Your task to perform on an android device: check battery use Image 0: 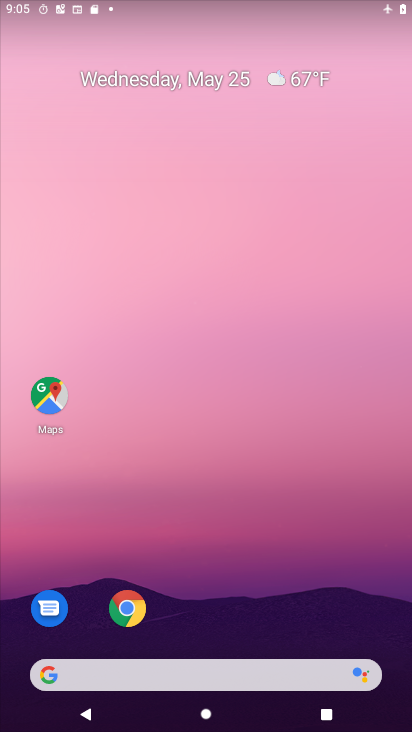
Step 0: drag from (221, 724) to (243, 98)
Your task to perform on an android device: check battery use Image 1: 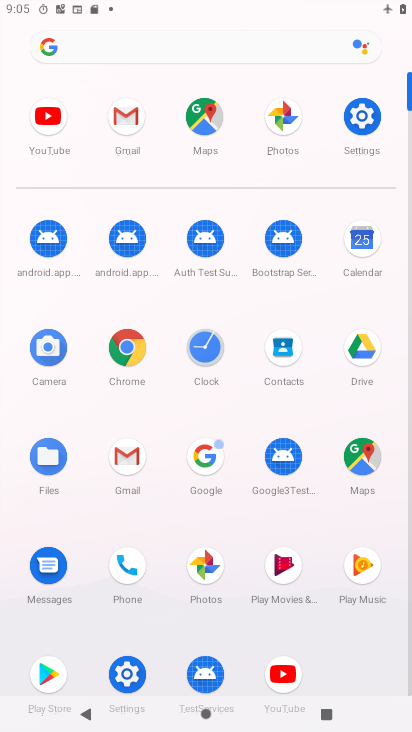
Step 1: click (364, 123)
Your task to perform on an android device: check battery use Image 2: 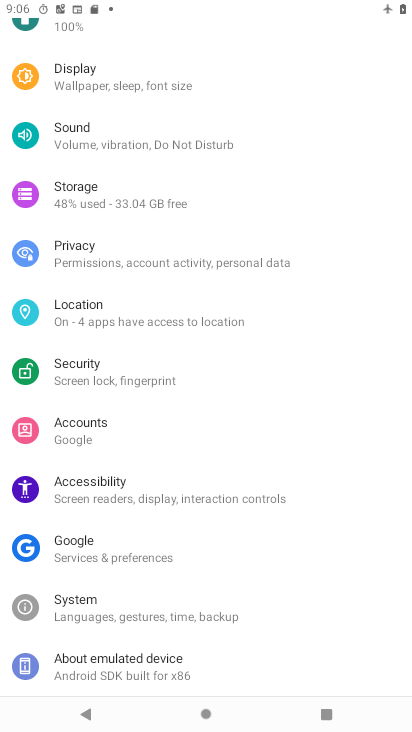
Step 2: drag from (214, 116) to (233, 445)
Your task to perform on an android device: check battery use Image 3: 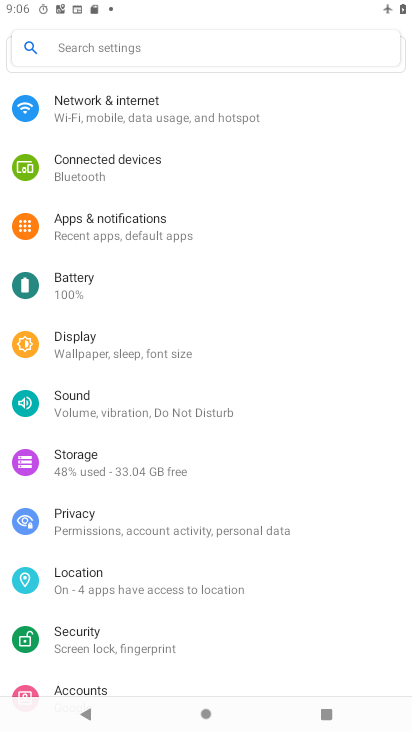
Step 3: click (70, 279)
Your task to perform on an android device: check battery use Image 4: 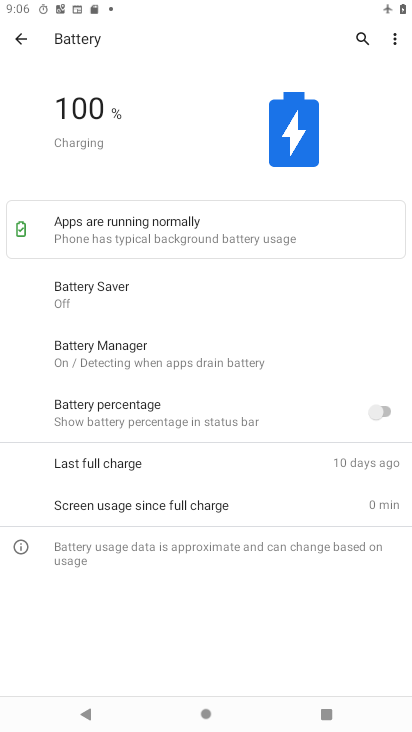
Step 4: click (396, 45)
Your task to perform on an android device: check battery use Image 5: 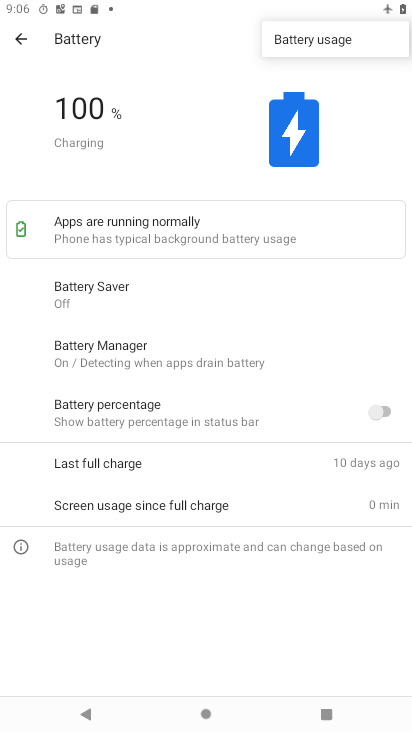
Step 5: click (339, 40)
Your task to perform on an android device: check battery use Image 6: 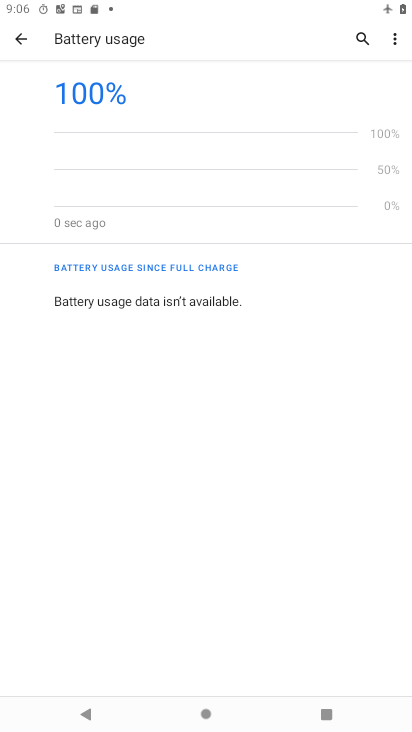
Step 6: task complete